Your task to perform on an android device: Go to Reddit.com Image 0: 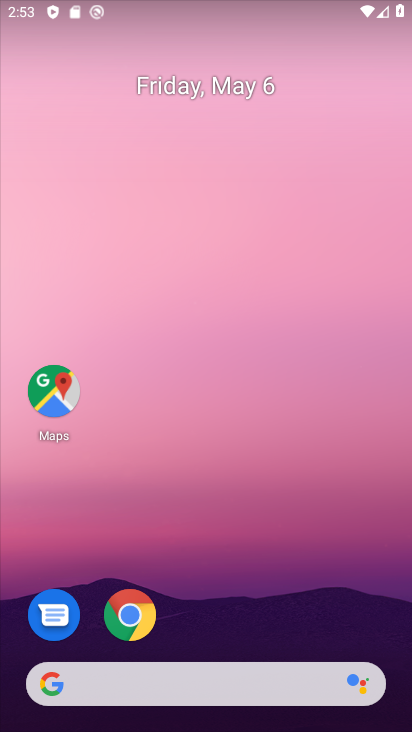
Step 0: click (137, 622)
Your task to perform on an android device: Go to Reddit.com Image 1: 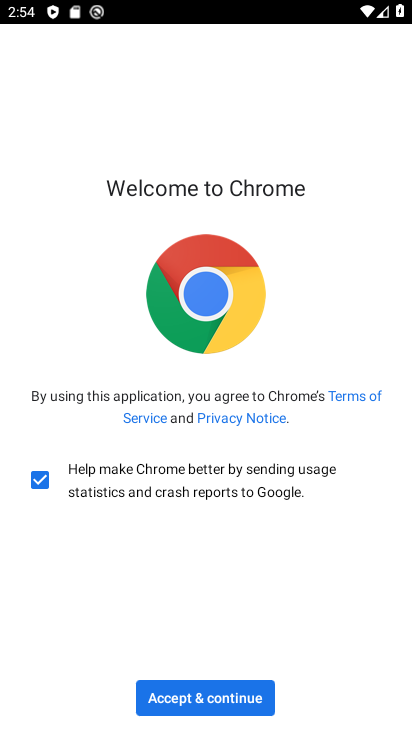
Step 1: click (216, 690)
Your task to perform on an android device: Go to Reddit.com Image 2: 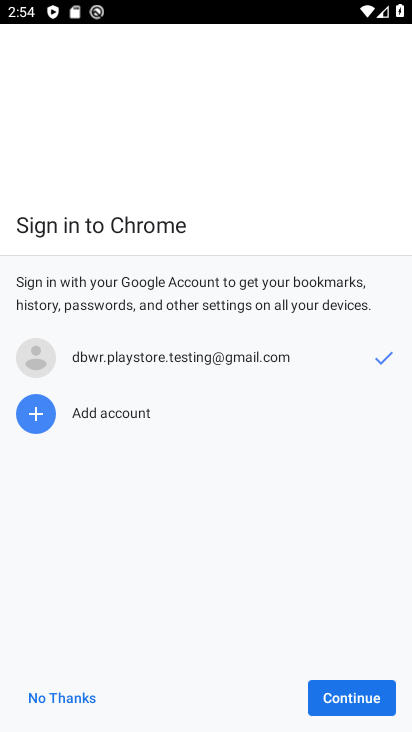
Step 2: click (82, 701)
Your task to perform on an android device: Go to Reddit.com Image 3: 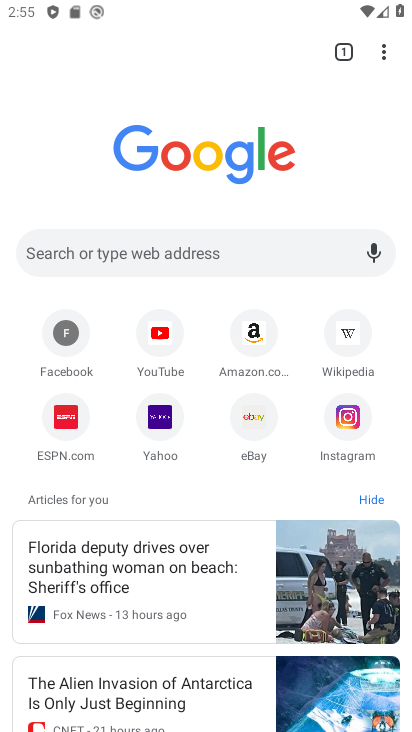
Step 3: click (90, 258)
Your task to perform on an android device: Go to Reddit.com Image 4: 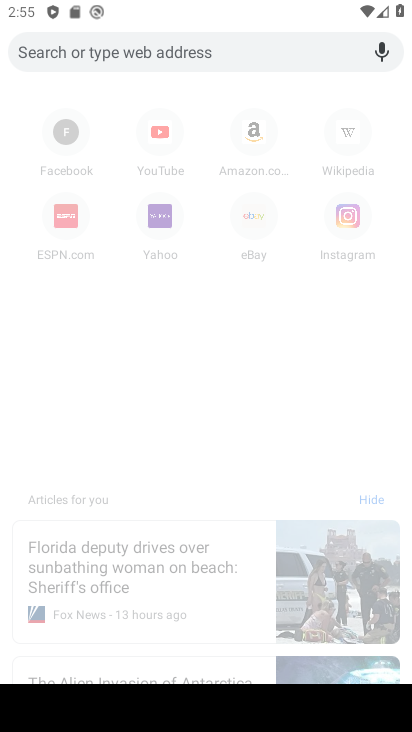
Step 4: type "reddit.com"
Your task to perform on an android device: Go to Reddit.com Image 5: 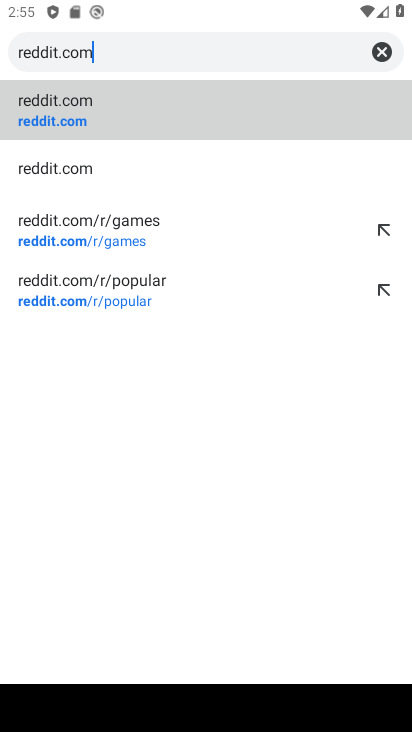
Step 5: click (73, 173)
Your task to perform on an android device: Go to Reddit.com Image 6: 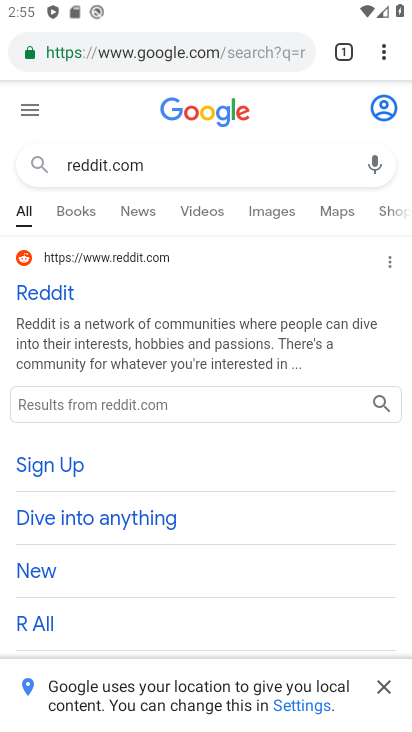
Step 6: click (49, 297)
Your task to perform on an android device: Go to Reddit.com Image 7: 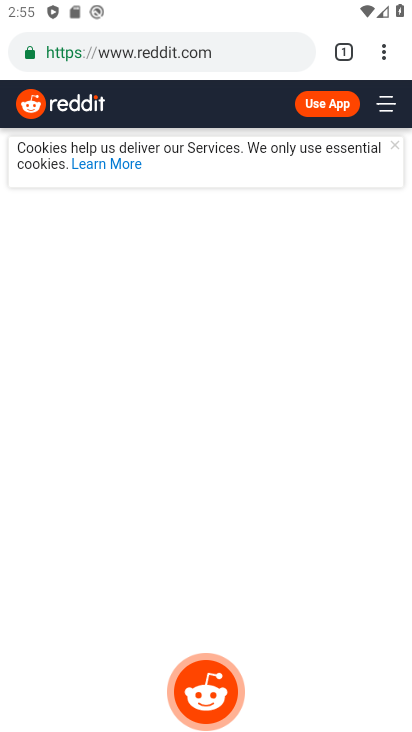
Step 7: task complete